Your task to perform on an android device: Clear the cart on bestbuy.com. Add panasonic triple a to the cart on bestbuy.com Image 0: 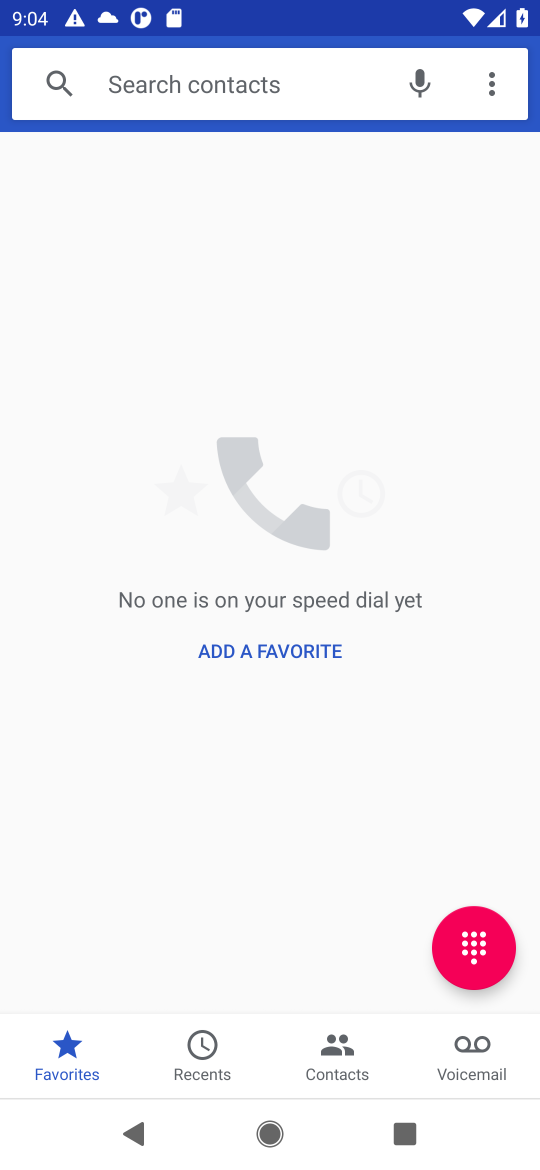
Step 0: task complete